Your task to perform on an android device: Go to internet settings Image 0: 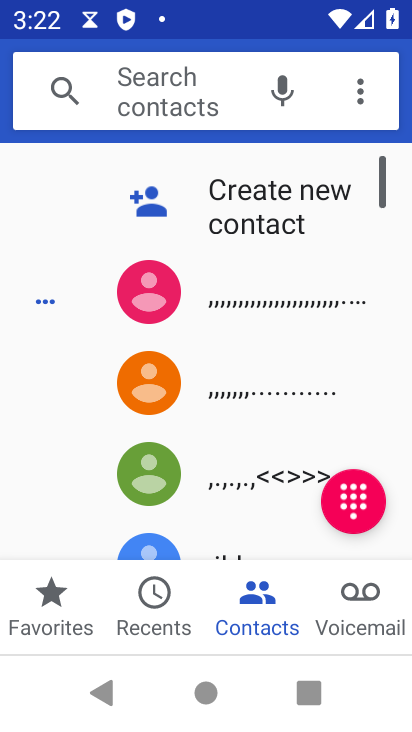
Step 0: press back button
Your task to perform on an android device: Go to internet settings Image 1: 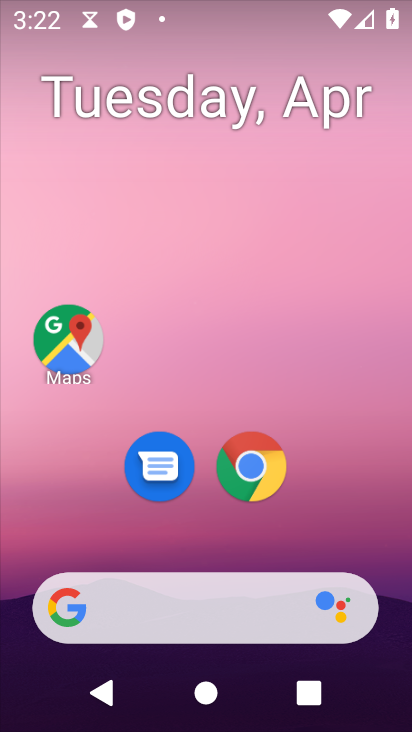
Step 1: drag from (343, 384) to (244, 18)
Your task to perform on an android device: Go to internet settings Image 2: 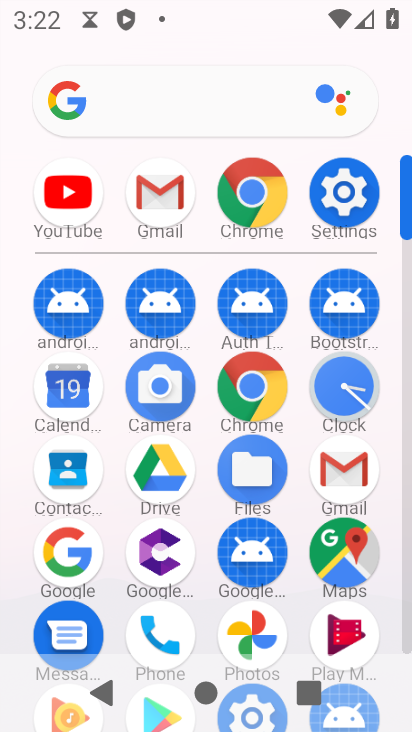
Step 2: drag from (8, 493) to (0, 239)
Your task to perform on an android device: Go to internet settings Image 3: 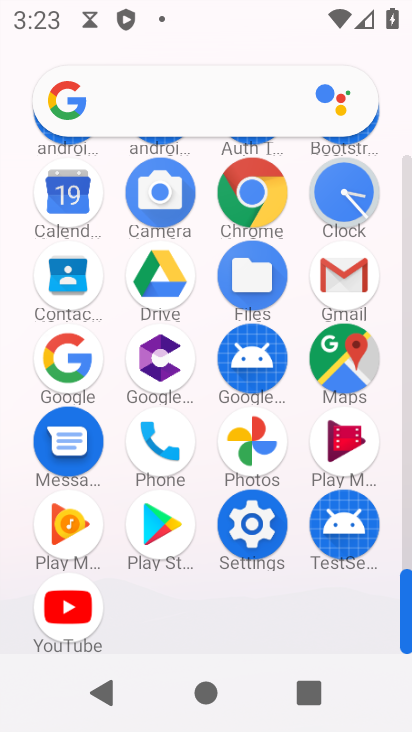
Step 3: click (252, 527)
Your task to perform on an android device: Go to internet settings Image 4: 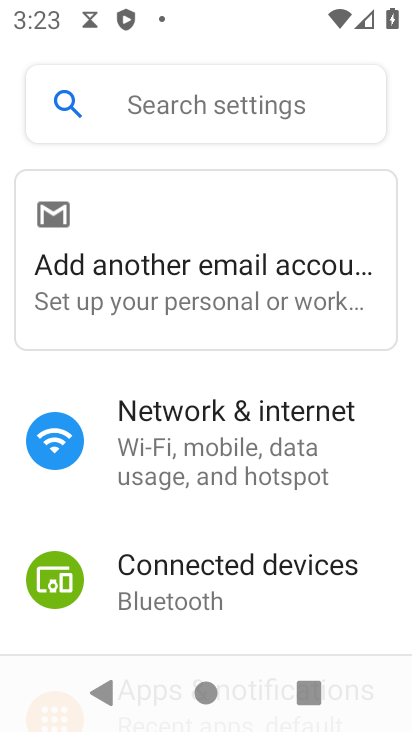
Step 4: drag from (21, 512) to (6, 191)
Your task to perform on an android device: Go to internet settings Image 5: 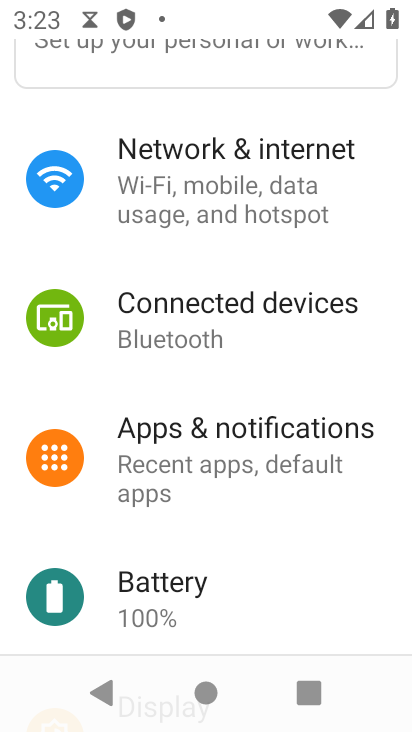
Step 5: click (212, 183)
Your task to perform on an android device: Go to internet settings Image 6: 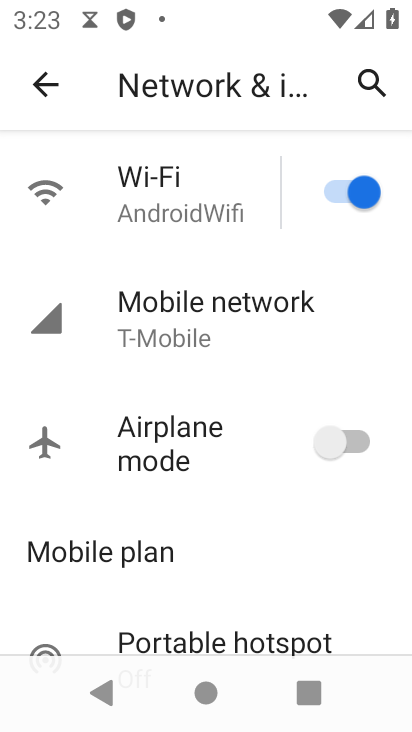
Step 6: click (210, 342)
Your task to perform on an android device: Go to internet settings Image 7: 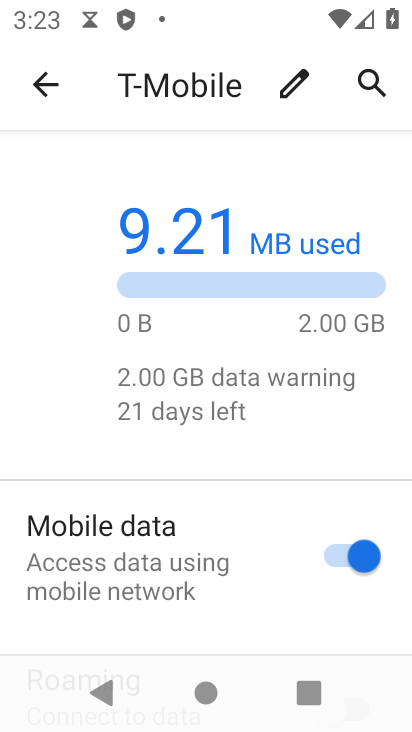
Step 7: drag from (219, 451) to (231, 176)
Your task to perform on an android device: Go to internet settings Image 8: 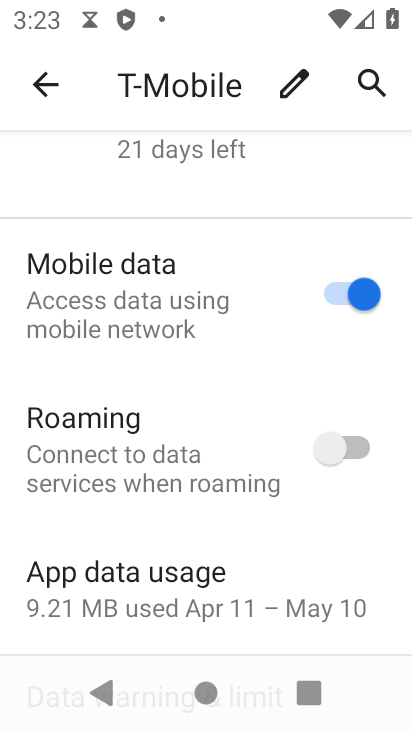
Step 8: click (40, 82)
Your task to perform on an android device: Go to internet settings Image 9: 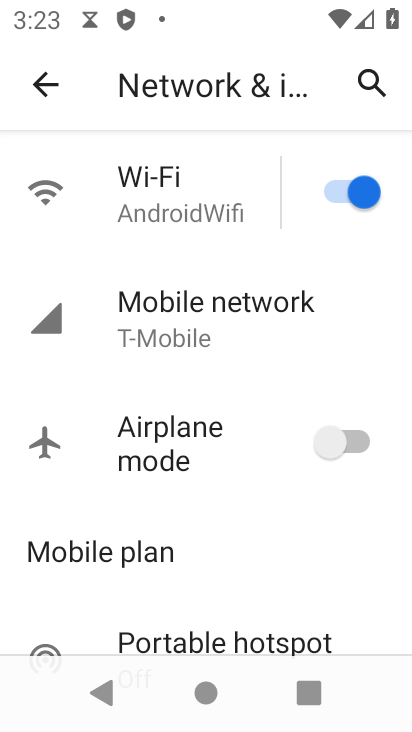
Step 9: task complete